Your task to perform on an android device: move a message to another label in the gmail app Image 0: 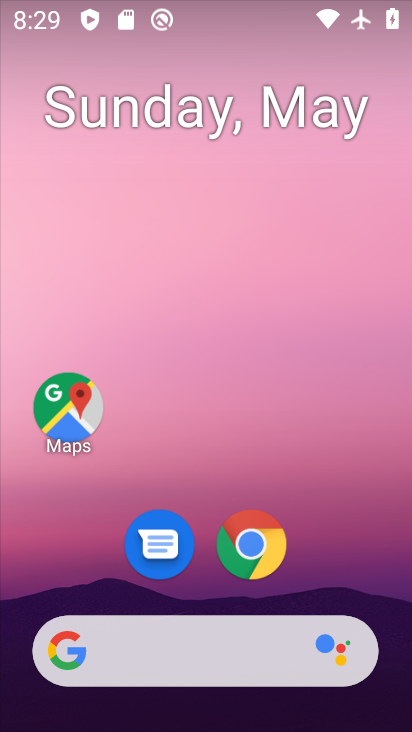
Step 0: drag from (339, 504) to (275, 25)
Your task to perform on an android device: move a message to another label in the gmail app Image 1: 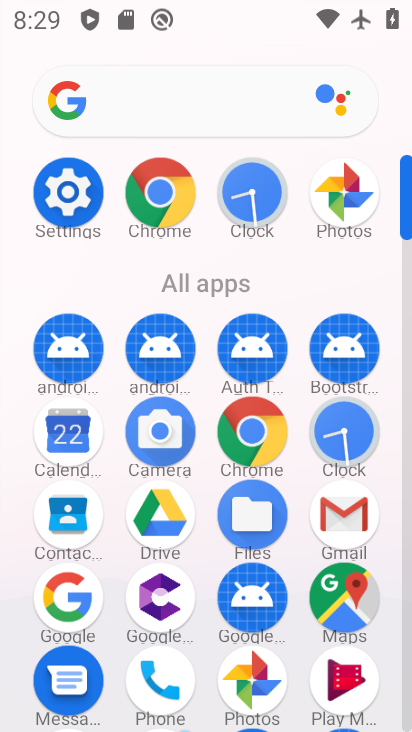
Step 1: drag from (20, 553) to (20, 268)
Your task to perform on an android device: move a message to another label in the gmail app Image 2: 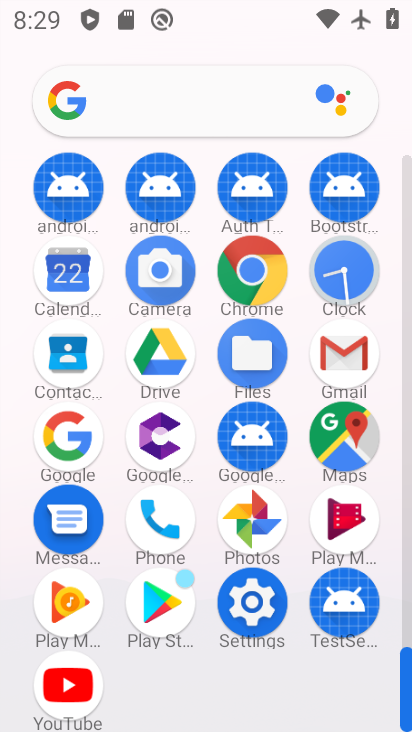
Step 2: click (347, 341)
Your task to perform on an android device: move a message to another label in the gmail app Image 3: 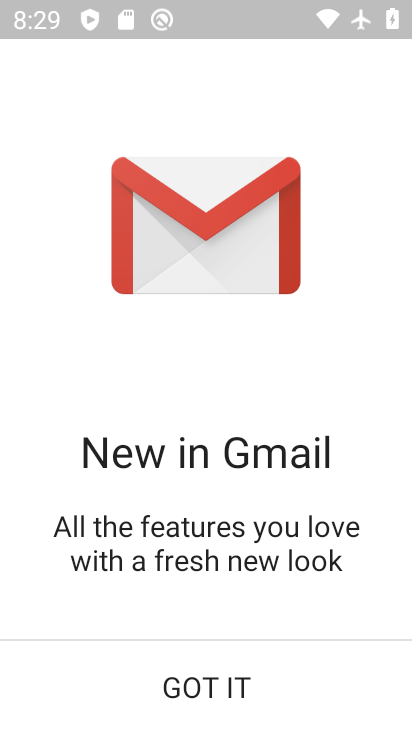
Step 3: click (201, 681)
Your task to perform on an android device: move a message to another label in the gmail app Image 4: 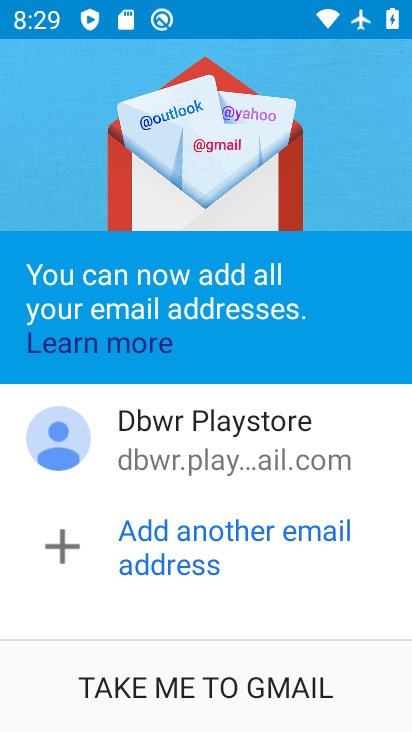
Step 4: click (203, 677)
Your task to perform on an android device: move a message to another label in the gmail app Image 5: 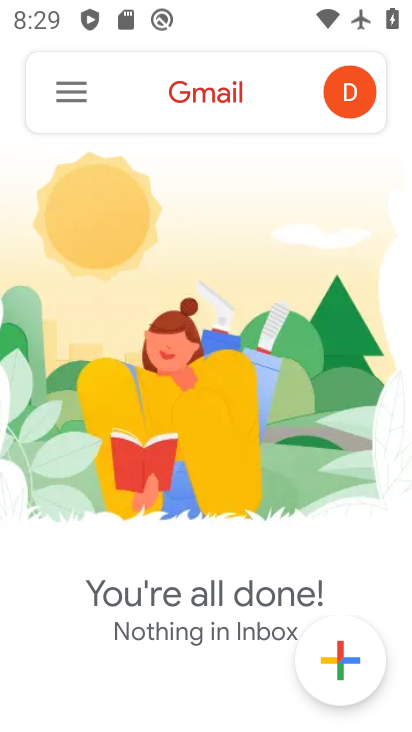
Step 5: click (81, 88)
Your task to perform on an android device: move a message to another label in the gmail app Image 6: 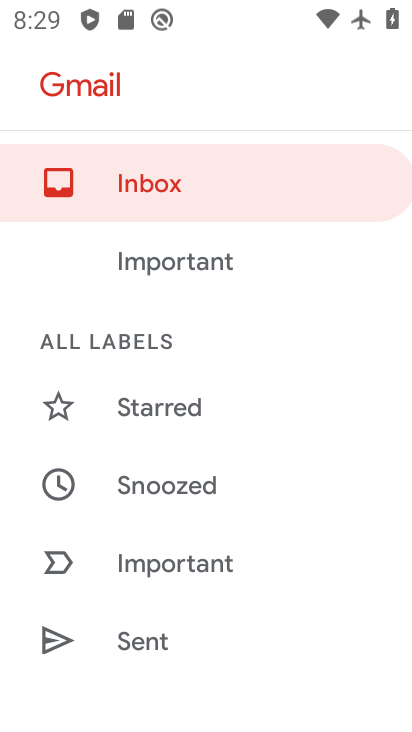
Step 6: drag from (181, 168) to (189, 558)
Your task to perform on an android device: move a message to another label in the gmail app Image 7: 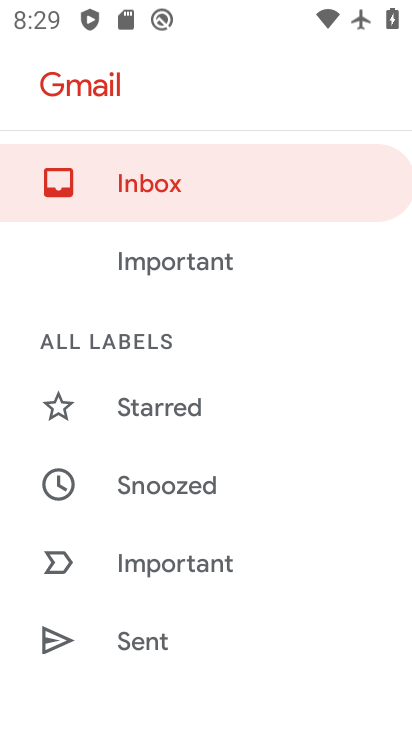
Step 7: drag from (222, 604) to (251, 164)
Your task to perform on an android device: move a message to another label in the gmail app Image 8: 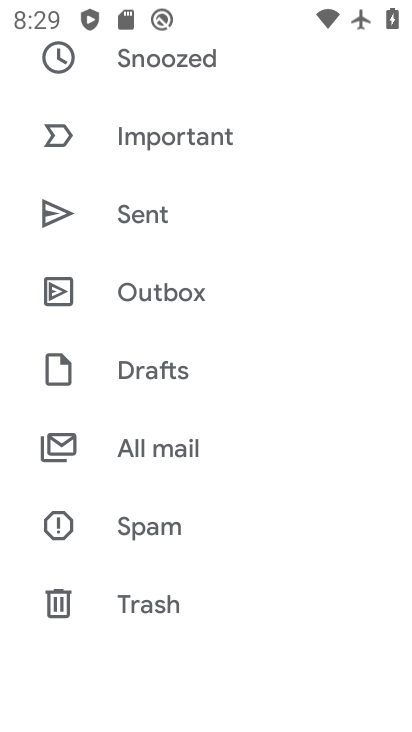
Step 8: click (164, 439)
Your task to perform on an android device: move a message to another label in the gmail app Image 9: 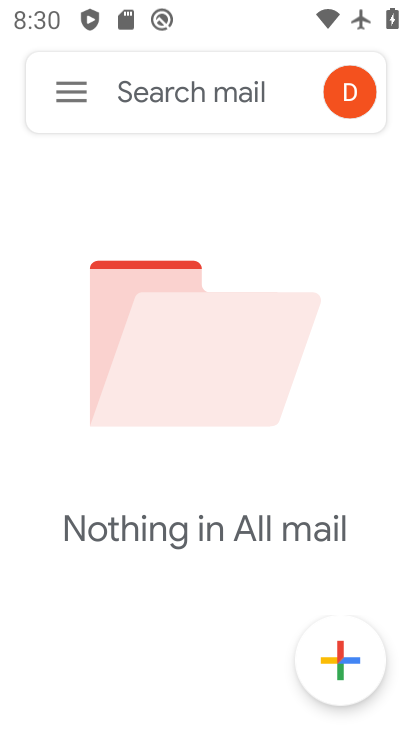
Step 9: task complete